Your task to perform on an android device: Open the web browser Image 0: 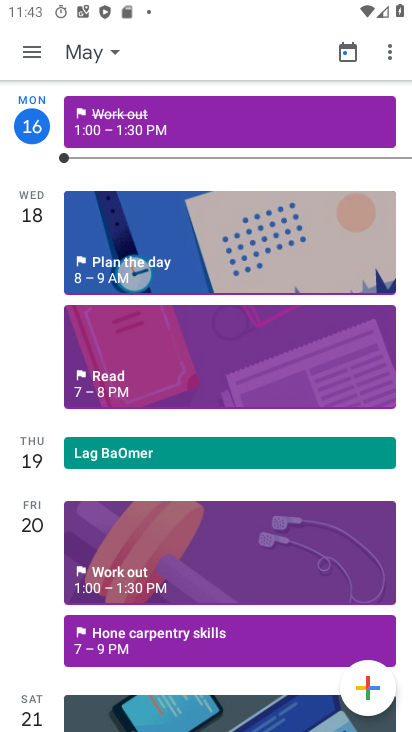
Step 0: press home button
Your task to perform on an android device: Open the web browser Image 1: 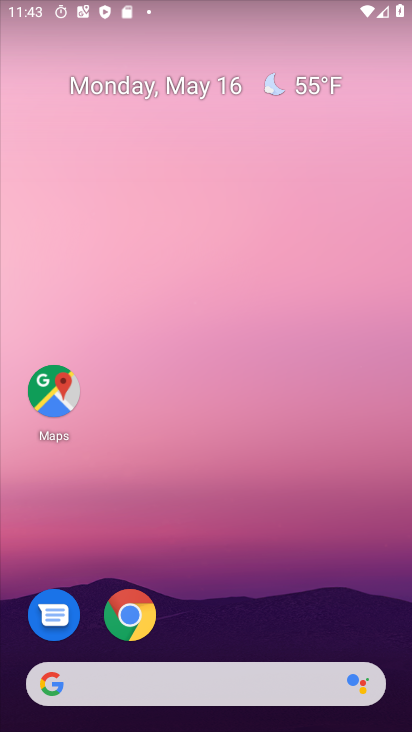
Step 1: click (132, 604)
Your task to perform on an android device: Open the web browser Image 2: 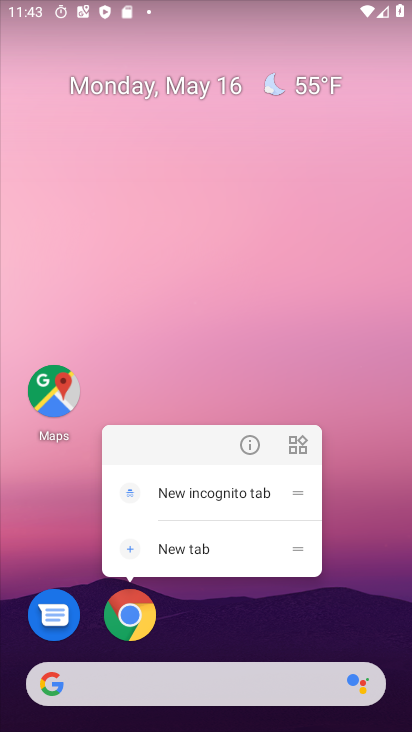
Step 2: click (137, 613)
Your task to perform on an android device: Open the web browser Image 3: 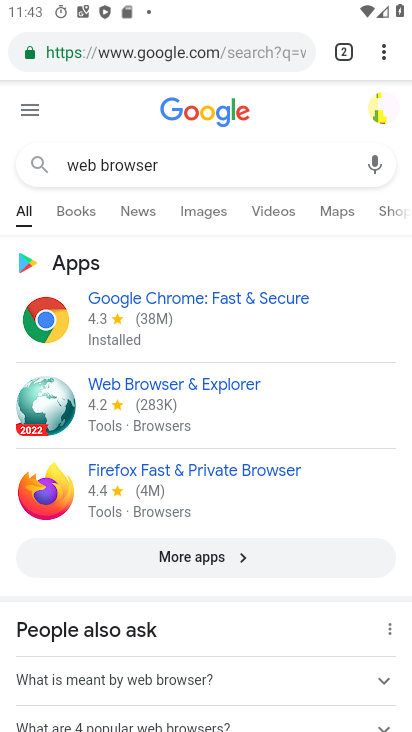
Step 3: click (179, 51)
Your task to perform on an android device: Open the web browser Image 4: 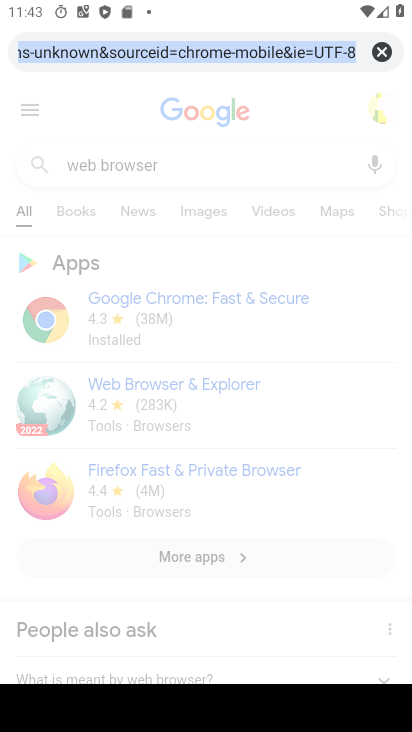
Step 4: click (376, 44)
Your task to perform on an android device: Open the web browser Image 5: 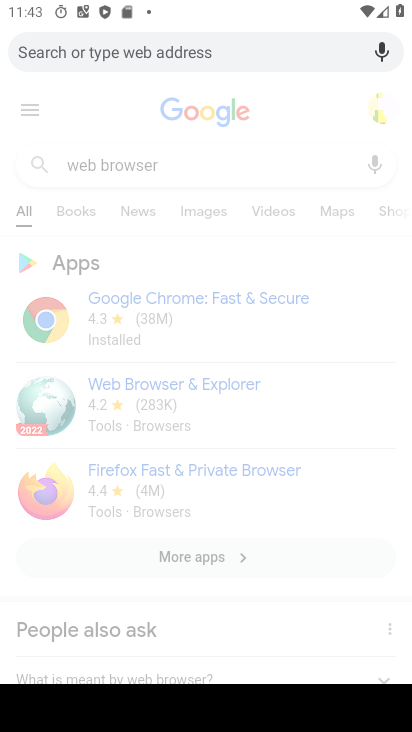
Step 5: type "web browser"
Your task to perform on an android device: Open the web browser Image 6: 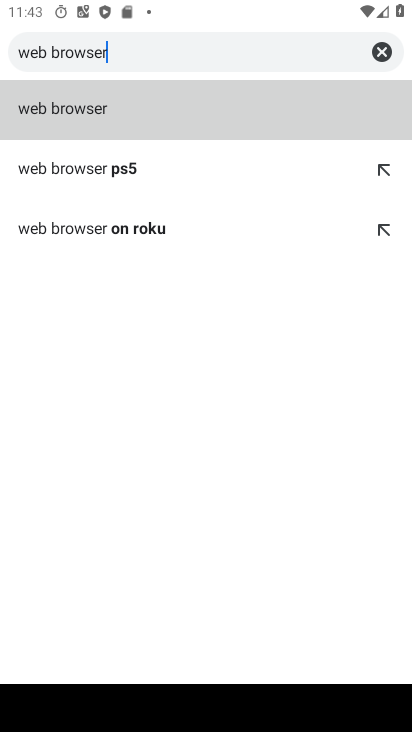
Step 6: click (57, 110)
Your task to perform on an android device: Open the web browser Image 7: 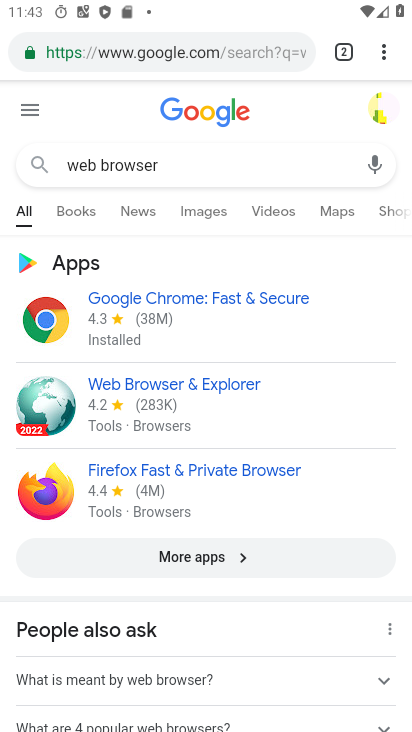
Step 7: task complete